Your task to perform on an android device: Open Google Maps Image 0: 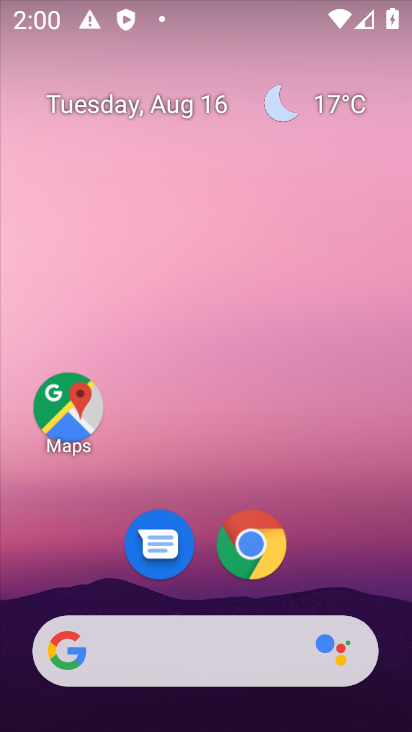
Step 0: click (71, 411)
Your task to perform on an android device: Open Google Maps Image 1: 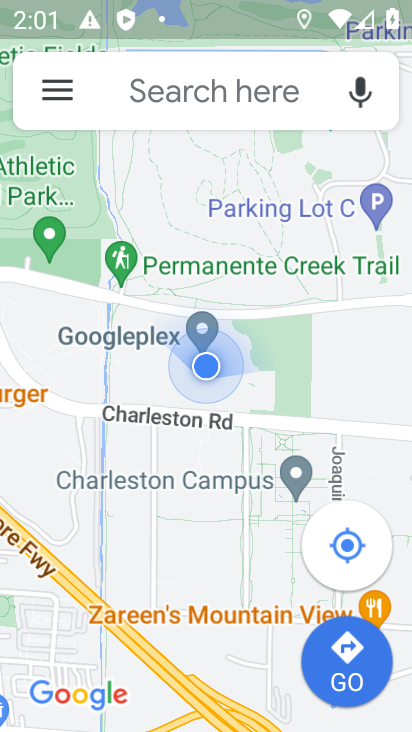
Step 1: task complete